Your task to perform on an android device: allow notifications from all sites in the chrome app Image 0: 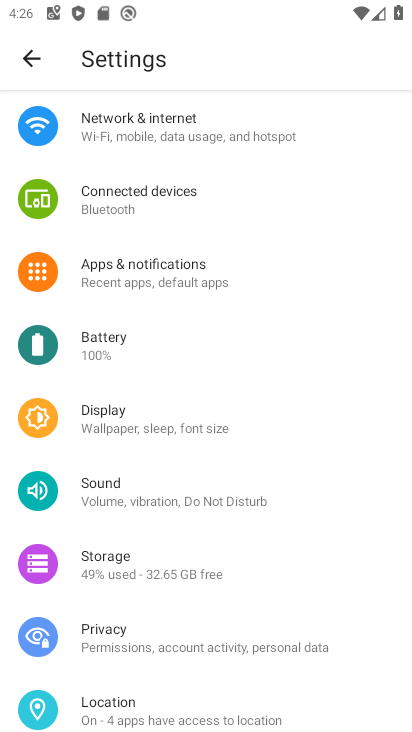
Step 0: click (168, 263)
Your task to perform on an android device: allow notifications from all sites in the chrome app Image 1: 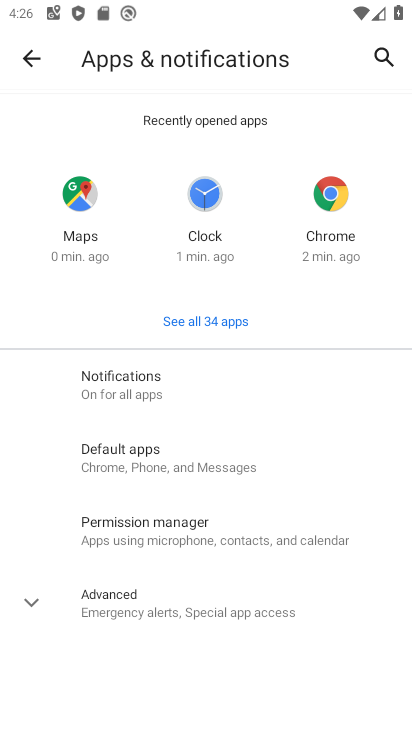
Step 1: press home button
Your task to perform on an android device: allow notifications from all sites in the chrome app Image 2: 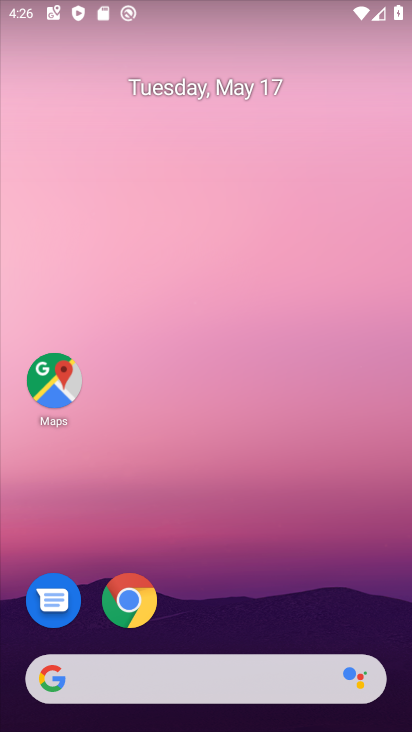
Step 2: click (130, 603)
Your task to perform on an android device: allow notifications from all sites in the chrome app Image 3: 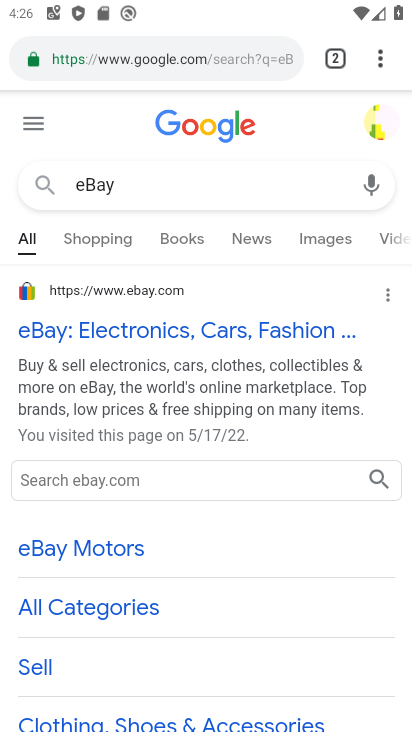
Step 3: click (384, 69)
Your task to perform on an android device: allow notifications from all sites in the chrome app Image 4: 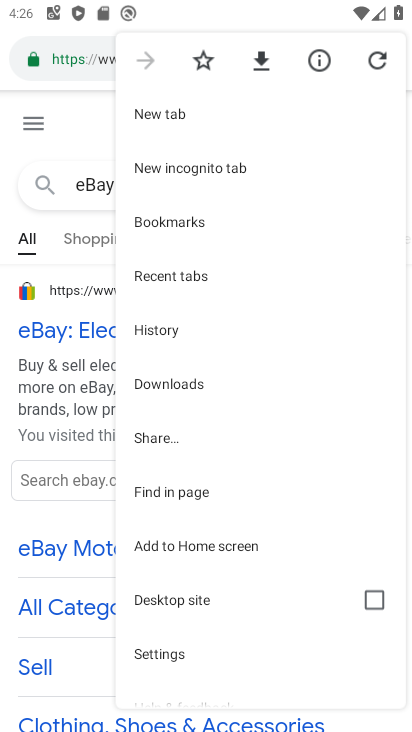
Step 4: drag from (189, 555) to (236, 273)
Your task to perform on an android device: allow notifications from all sites in the chrome app Image 5: 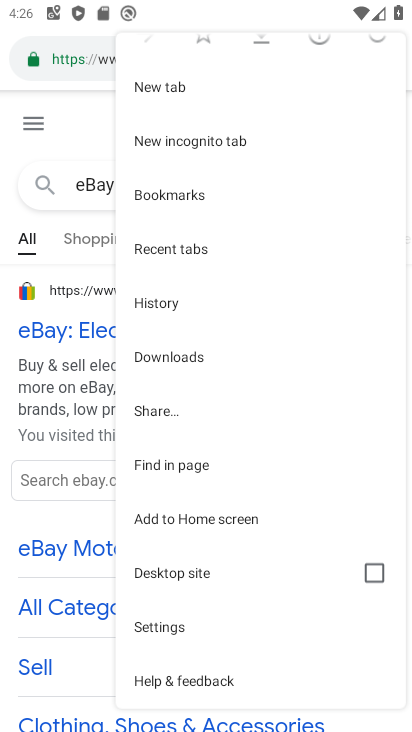
Step 5: click (167, 630)
Your task to perform on an android device: allow notifications from all sites in the chrome app Image 6: 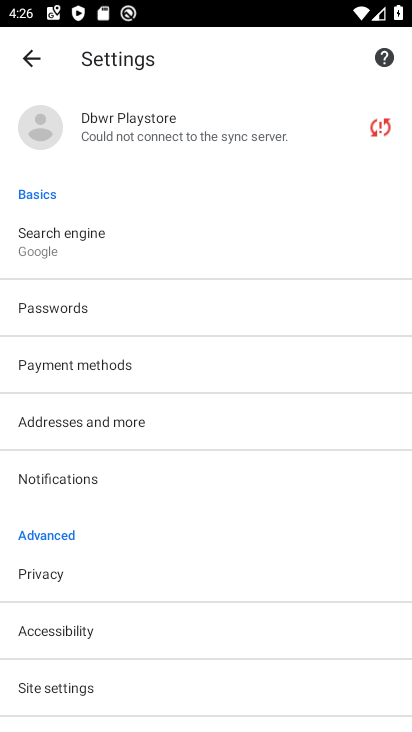
Step 6: click (77, 485)
Your task to perform on an android device: allow notifications from all sites in the chrome app Image 7: 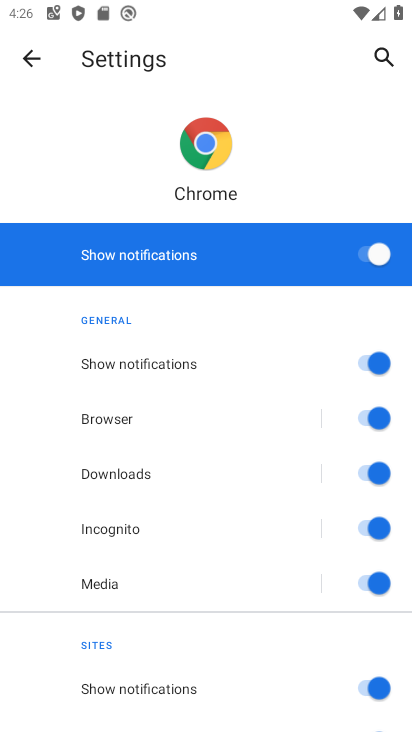
Step 7: task complete